Your task to perform on an android device: open chrome and create a bookmark for the current page Image 0: 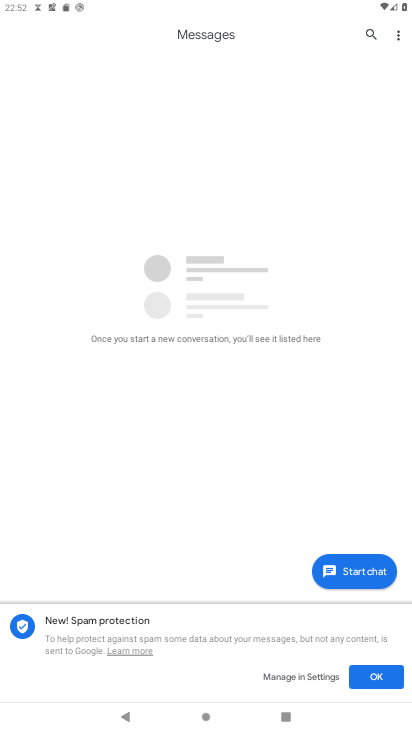
Step 0: press home button
Your task to perform on an android device: open chrome and create a bookmark for the current page Image 1: 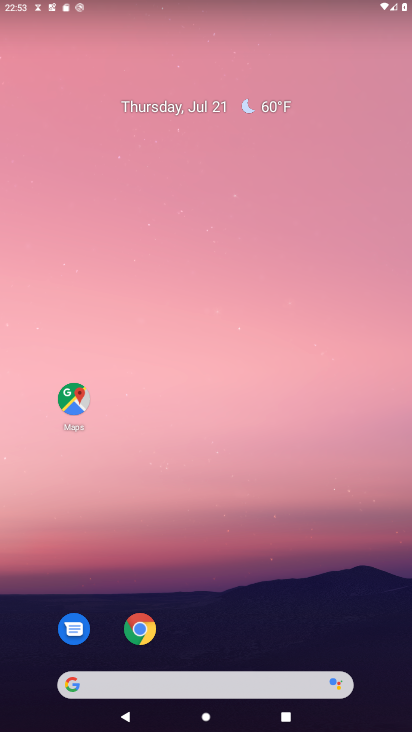
Step 1: drag from (248, 633) to (250, 210)
Your task to perform on an android device: open chrome and create a bookmark for the current page Image 2: 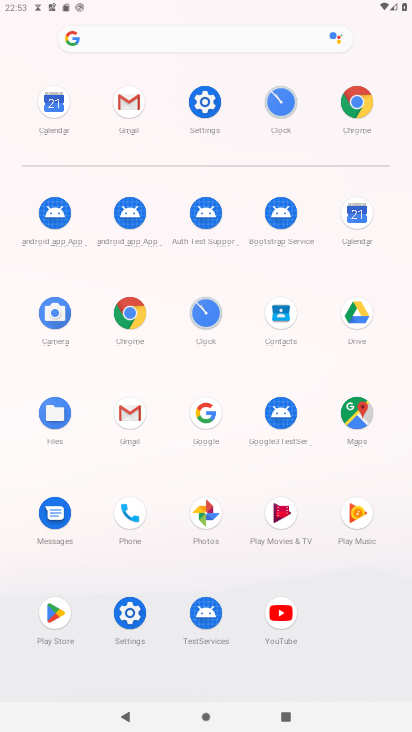
Step 2: click (352, 108)
Your task to perform on an android device: open chrome and create a bookmark for the current page Image 3: 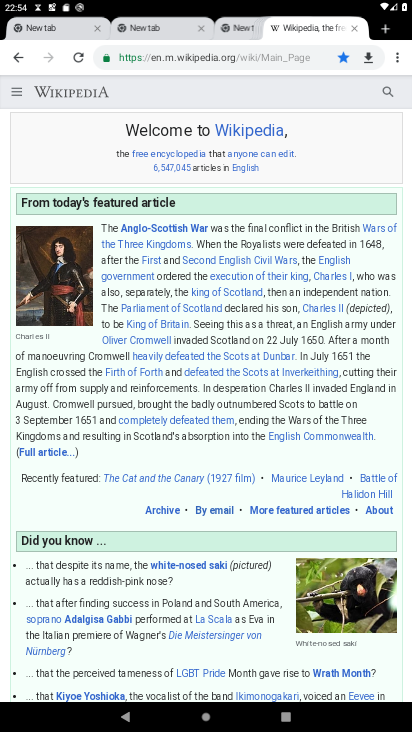
Step 3: click (394, 52)
Your task to perform on an android device: open chrome and create a bookmark for the current page Image 4: 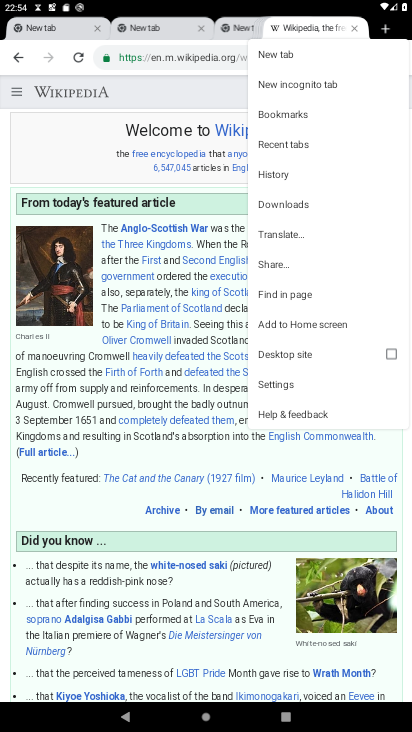
Step 4: click (75, 130)
Your task to perform on an android device: open chrome and create a bookmark for the current page Image 5: 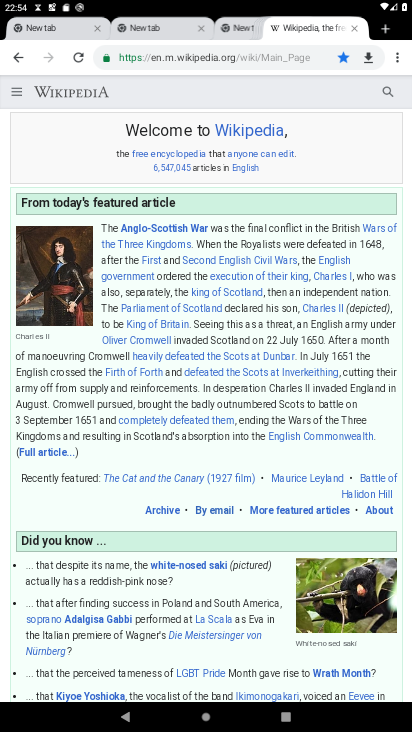
Step 5: task complete